Your task to perform on an android device: Open Reddit.com Image 0: 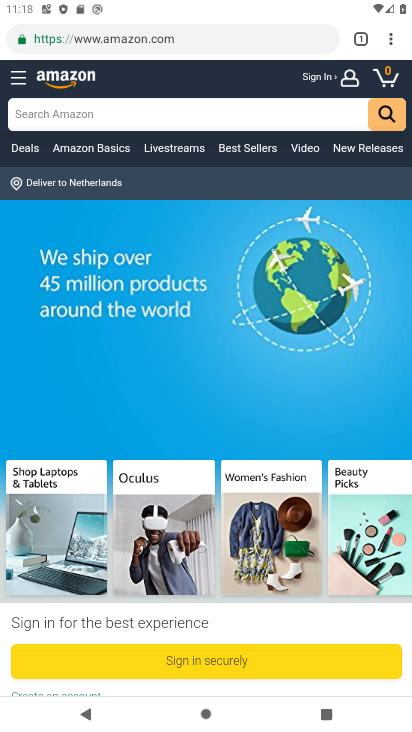
Step 0: press home button
Your task to perform on an android device: Open Reddit.com Image 1: 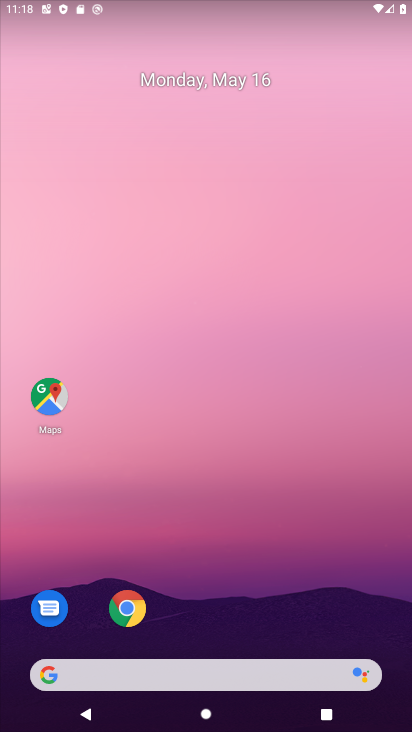
Step 1: drag from (233, 681) to (264, 188)
Your task to perform on an android device: Open Reddit.com Image 2: 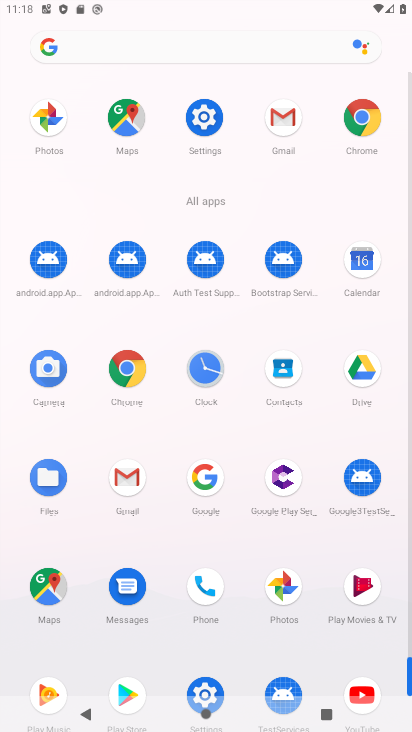
Step 2: click (357, 120)
Your task to perform on an android device: Open Reddit.com Image 3: 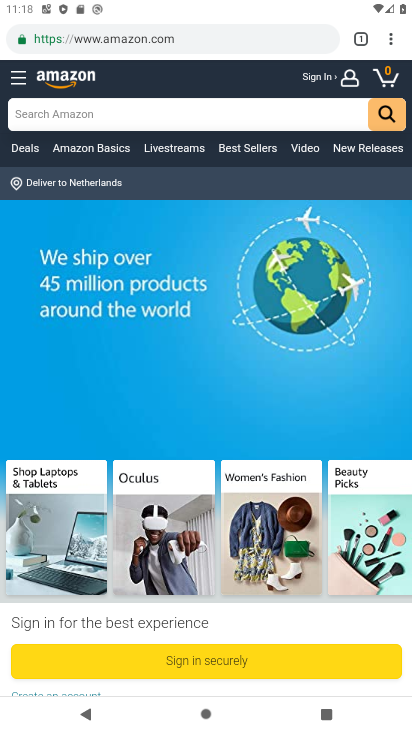
Step 3: drag from (386, 44) to (352, 70)
Your task to perform on an android device: Open Reddit.com Image 4: 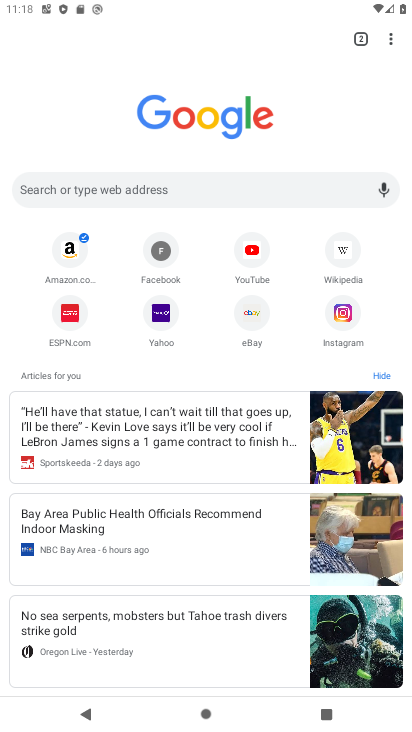
Step 4: click (156, 190)
Your task to perform on an android device: Open Reddit.com Image 5: 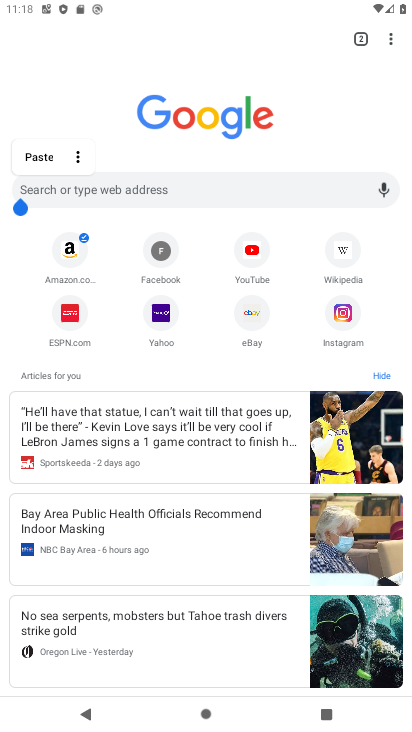
Step 5: click (118, 191)
Your task to perform on an android device: Open Reddit.com Image 6: 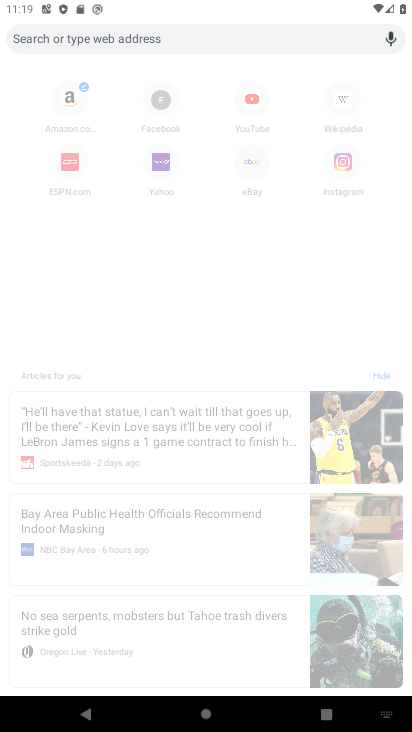
Step 6: type "reddit.com"
Your task to perform on an android device: Open Reddit.com Image 7: 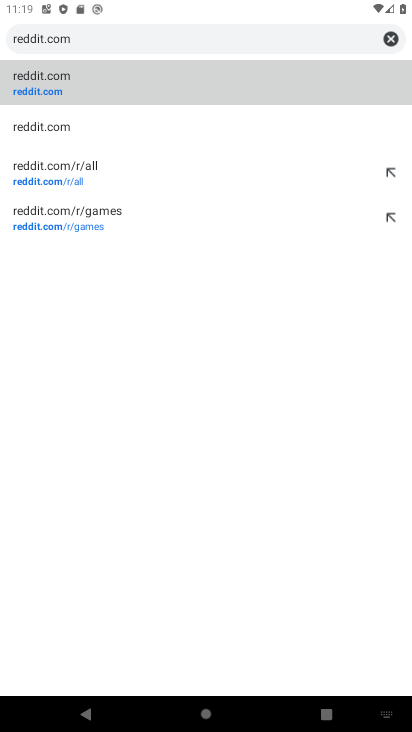
Step 7: click (39, 77)
Your task to perform on an android device: Open Reddit.com Image 8: 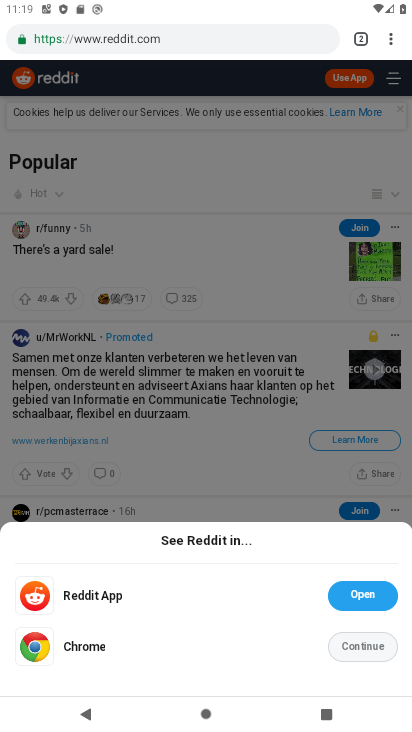
Step 8: task complete